Your task to perform on an android device: Go to display settings Image 0: 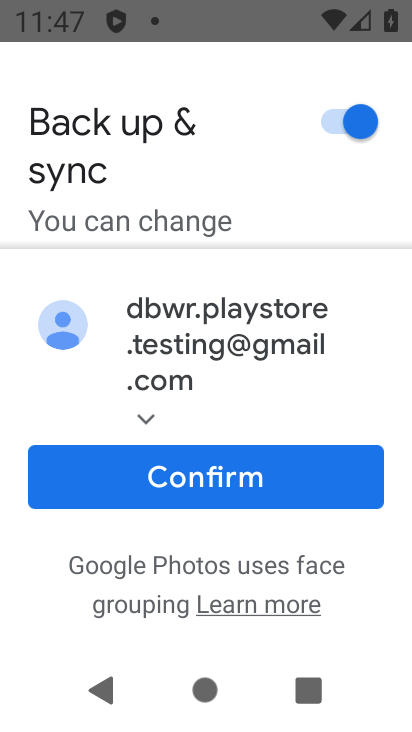
Step 0: press home button
Your task to perform on an android device: Go to display settings Image 1: 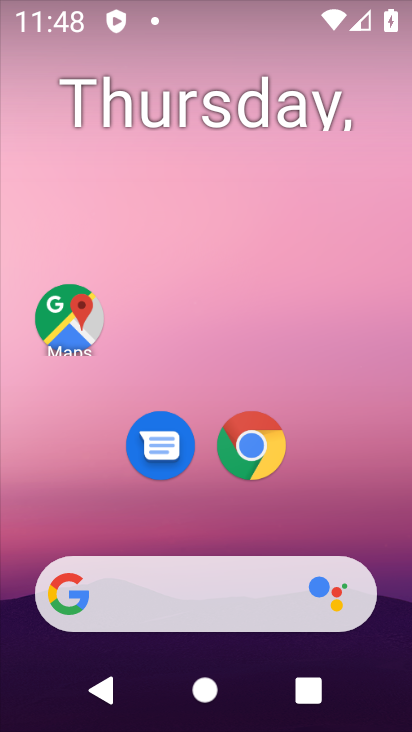
Step 1: drag from (153, 567) to (250, 19)
Your task to perform on an android device: Go to display settings Image 2: 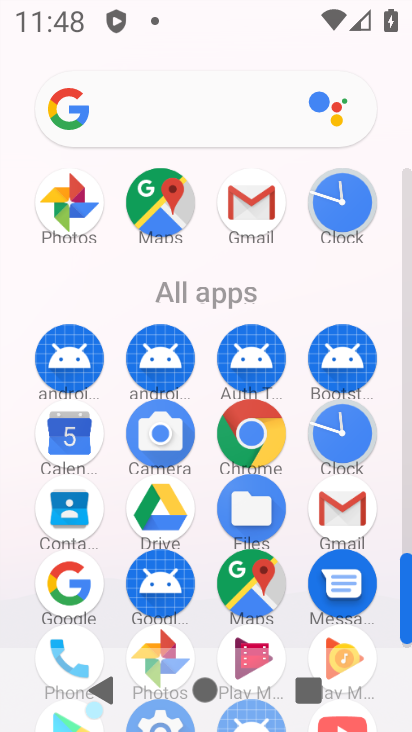
Step 2: drag from (201, 663) to (314, 192)
Your task to perform on an android device: Go to display settings Image 3: 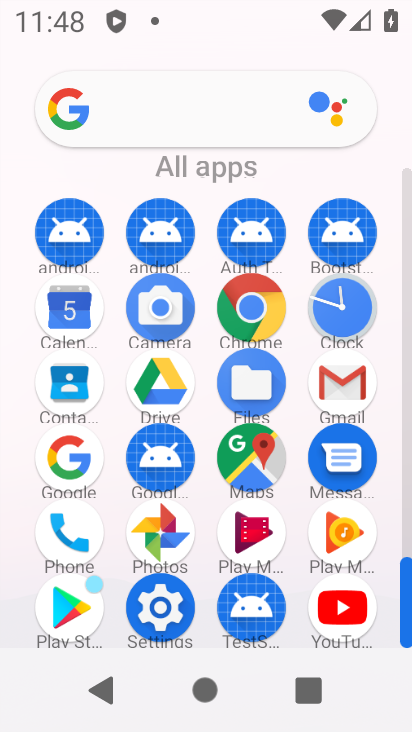
Step 3: click (178, 600)
Your task to perform on an android device: Go to display settings Image 4: 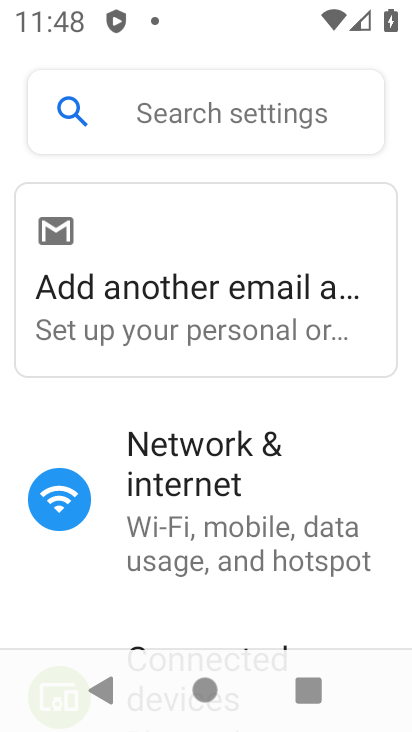
Step 4: drag from (215, 612) to (293, 190)
Your task to perform on an android device: Go to display settings Image 5: 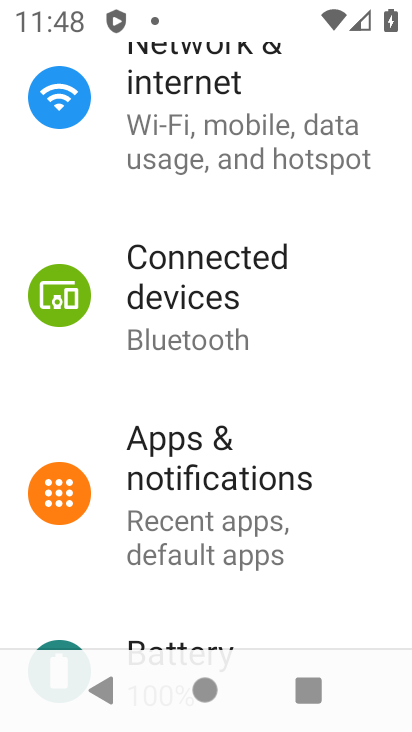
Step 5: drag from (177, 612) to (251, 243)
Your task to perform on an android device: Go to display settings Image 6: 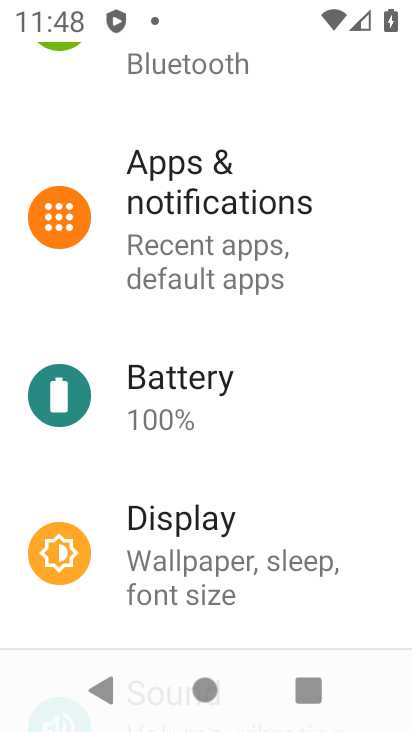
Step 6: click (195, 574)
Your task to perform on an android device: Go to display settings Image 7: 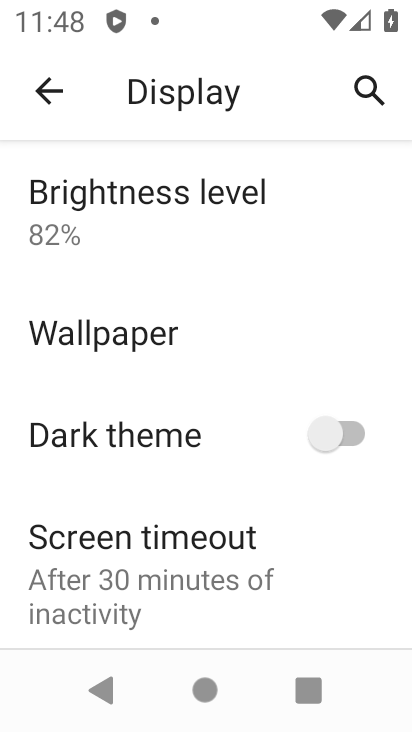
Step 7: task complete